Your task to perform on an android device: open a new tab in the chrome app Image 0: 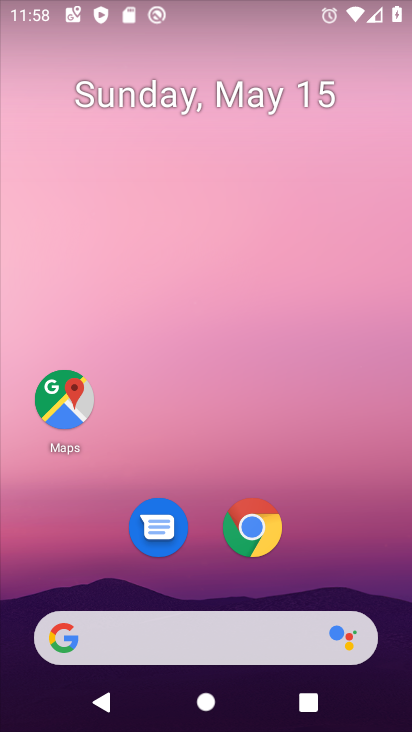
Step 0: click (264, 538)
Your task to perform on an android device: open a new tab in the chrome app Image 1: 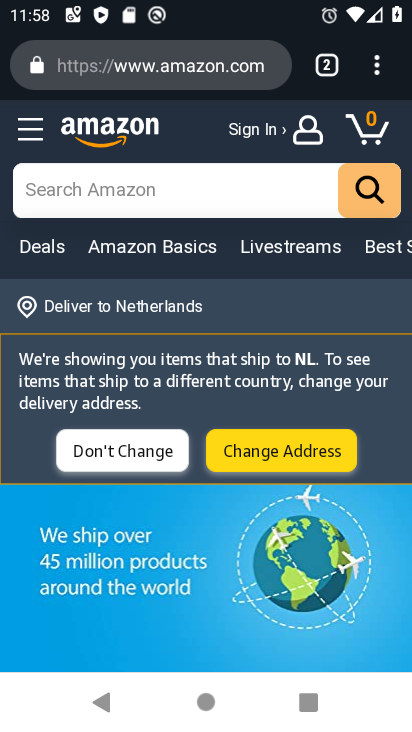
Step 1: click (319, 82)
Your task to perform on an android device: open a new tab in the chrome app Image 2: 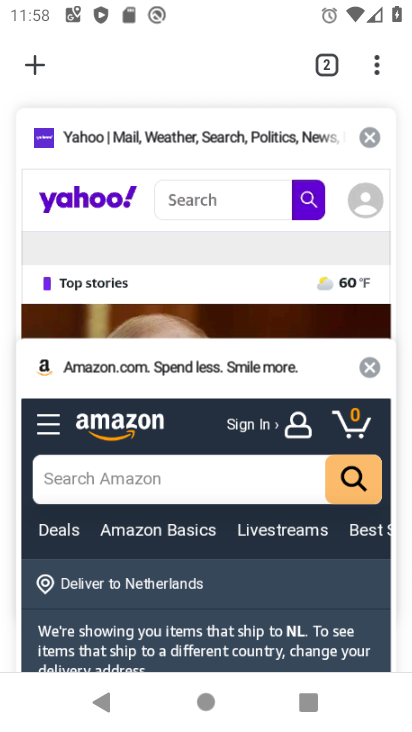
Step 2: click (22, 83)
Your task to perform on an android device: open a new tab in the chrome app Image 3: 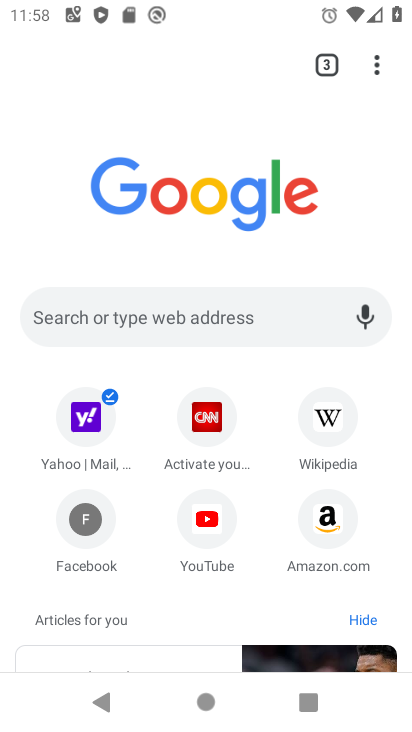
Step 3: task complete